Your task to perform on an android device: Open my contact list Image 0: 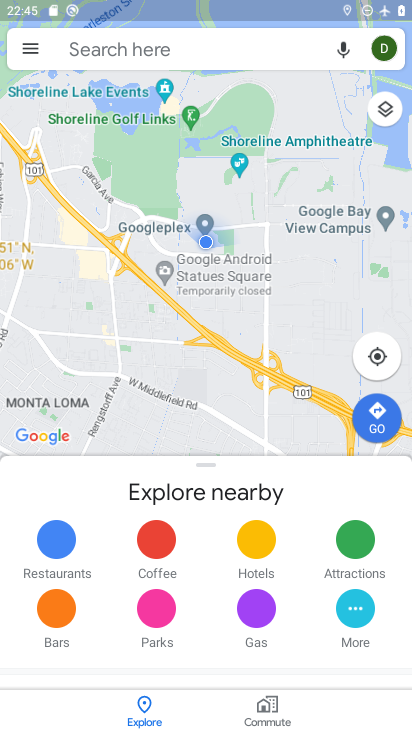
Step 0: press home button
Your task to perform on an android device: Open my contact list Image 1: 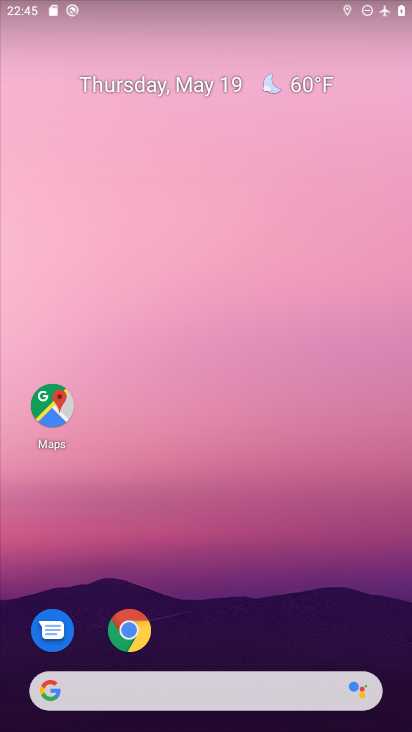
Step 1: drag from (210, 559) to (190, 23)
Your task to perform on an android device: Open my contact list Image 2: 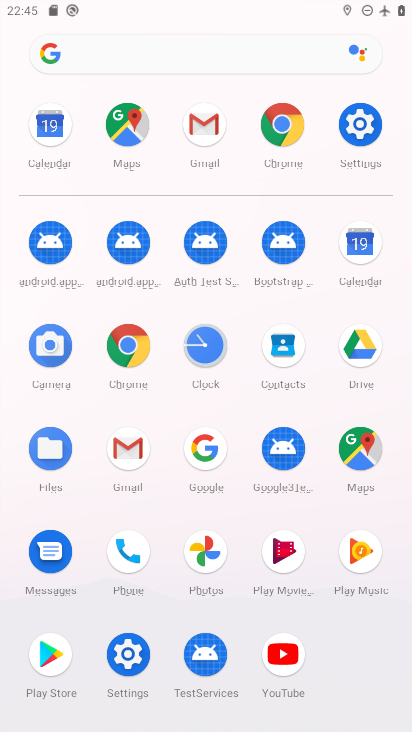
Step 2: click (280, 336)
Your task to perform on an android device: Open my contact list Image 3: 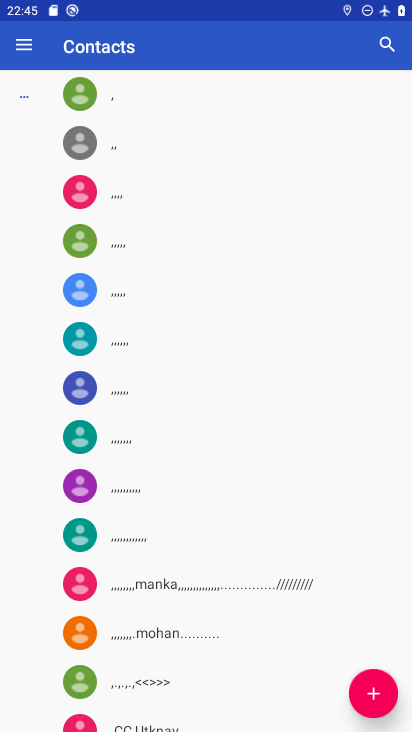
Step 3: click (374, 691)
Your task to perform on an android device: Open my contact list Image 4: 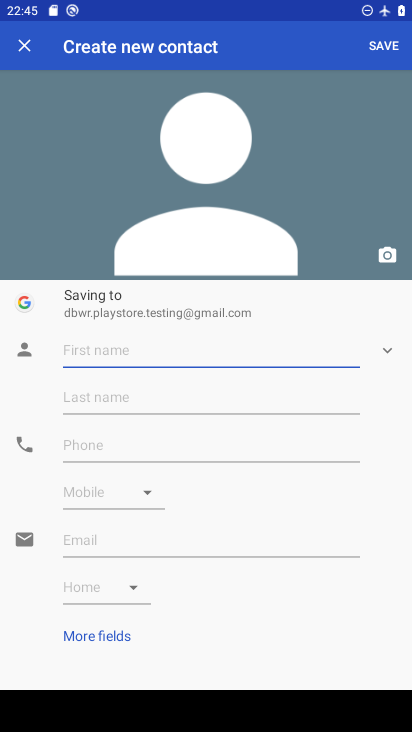
Step 4: type "dfgh"
Your task to perform on an android device: Open my contact list Image 5: 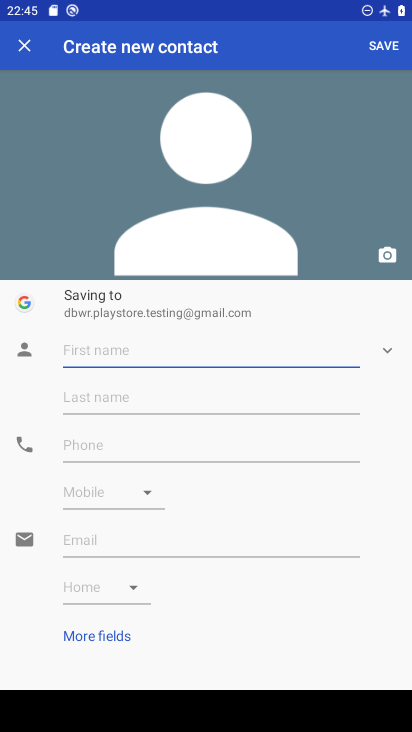
Step 5: click (112, 442)
Your task to perform on an android device: Open my contact list Image 6: 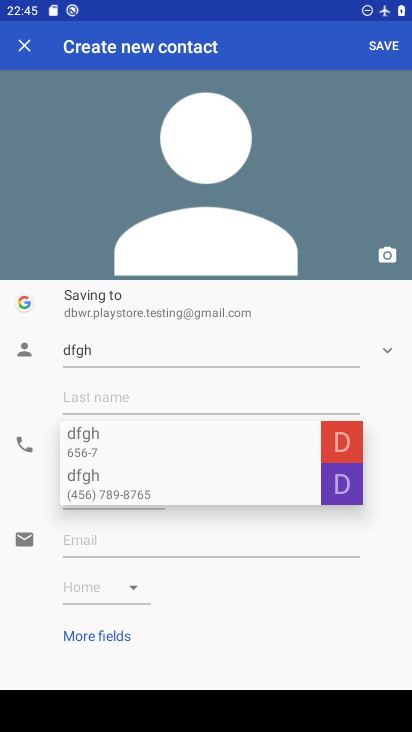
Step 6: click (295, 587)
Your task to perform on an android device: Open my contact list Image 7: 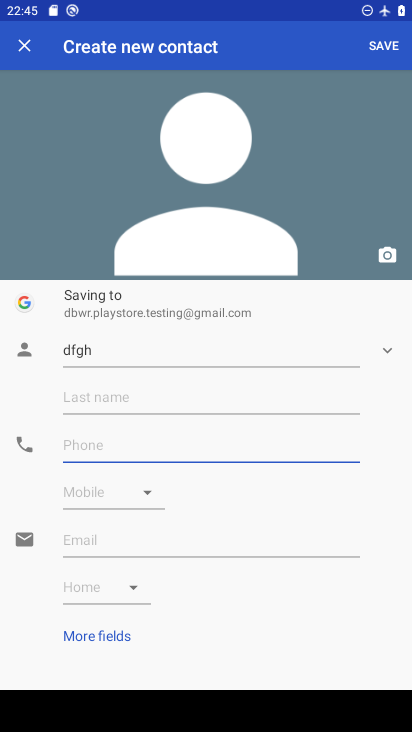
Step 7: type "98765245673456756"
Your task to perform on an android device: Open my contact list Image 8: 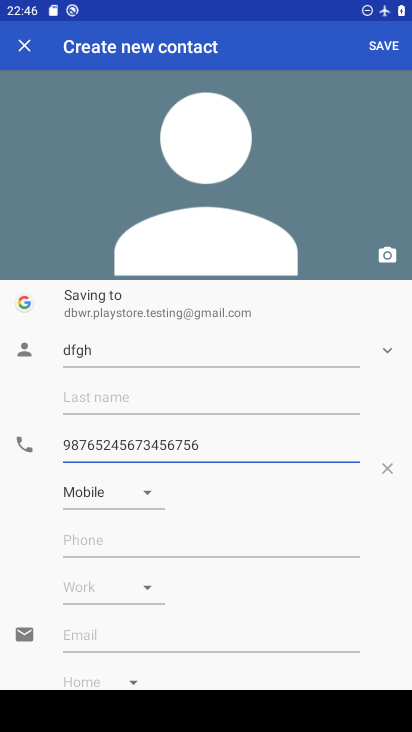
Step 8: click (379, 41)
Your task to perform on an android device: Open my contact list Image 9: 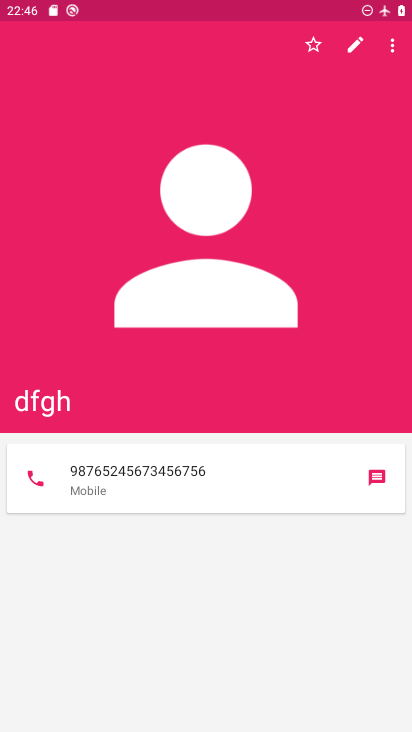
Step 9: task complete